Your task to perform on an android device: Open display settings Image 0: 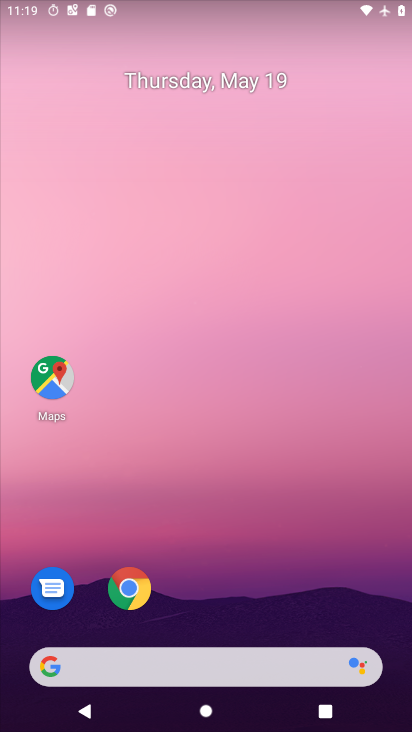
Step 0: drag from (107, 674) to (324, 73)
Your task to perform on an android device: Open display settings Image 1: 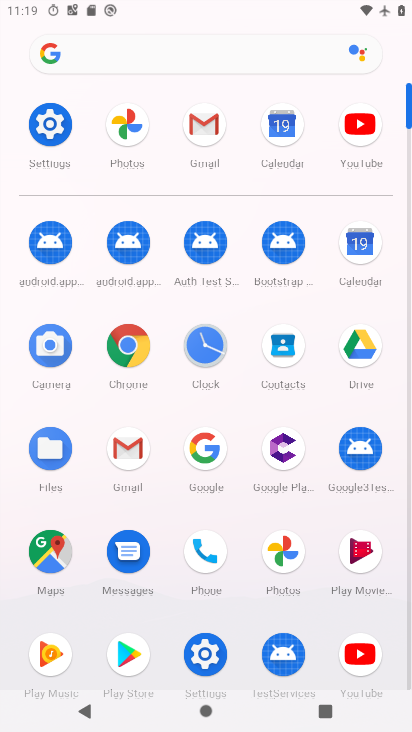
Step 1: click (50, 131)
Your task to perform on an android device: Open display settings Image 2: 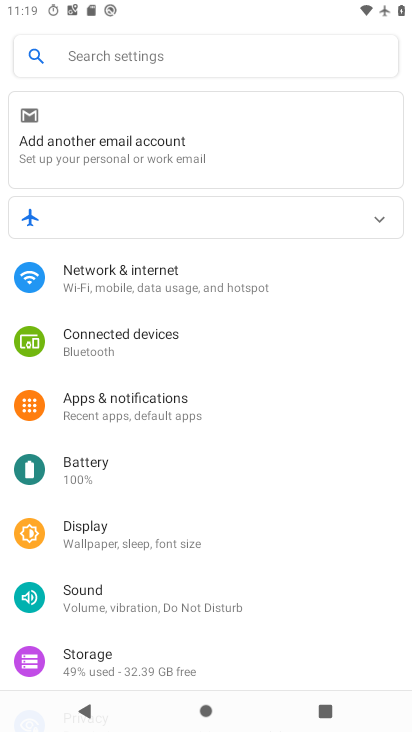
Step 2: click (118, 531)
Your task to perform on an android device: Open display settings Image 3: 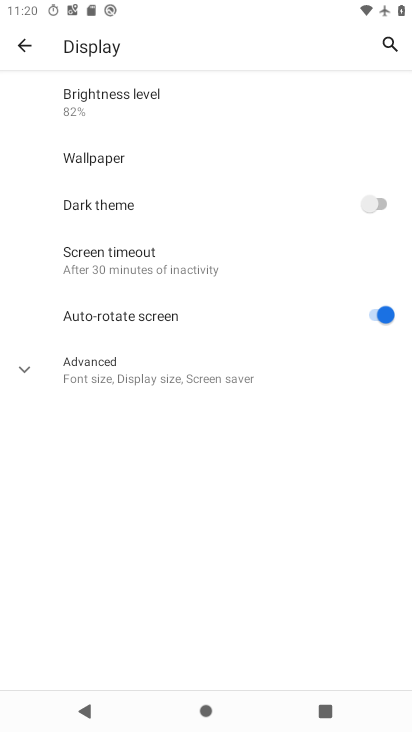
Step 3: task complete